Your task to perform on an android device: Play the last video I watched on Youtube Image 0: 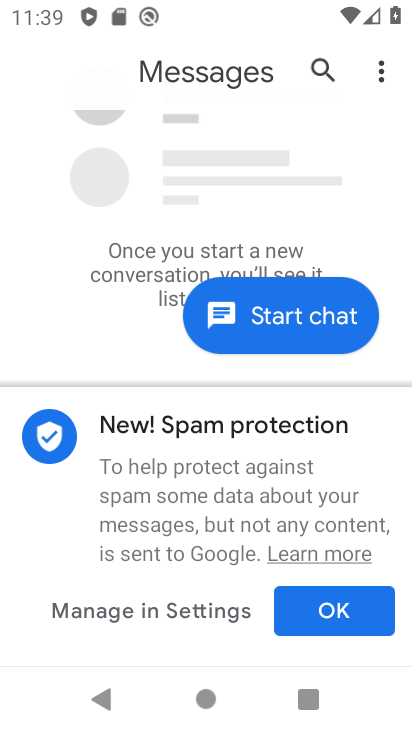
Step 0: press home button
Your task to perform on an android device: Play the last video I watched on Youtube Image 1: 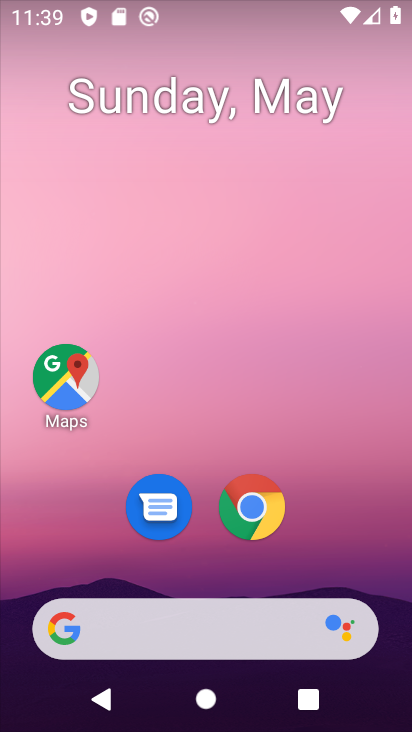
Step 1: drag from (222, 724) to (225, 0)
Your task to perform on an android device: Play the last video I watched on Youtube Image 2: 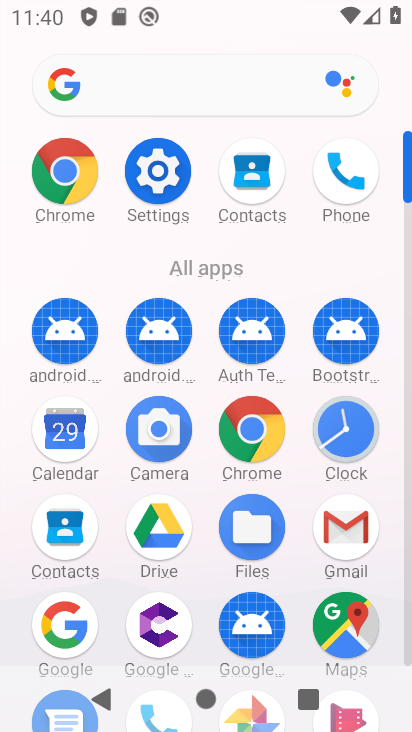
Step 2: drag from (295, 619) to (297, 218)
Your task to perform on an android device: Play the last video I watched on Youtube Image 3: 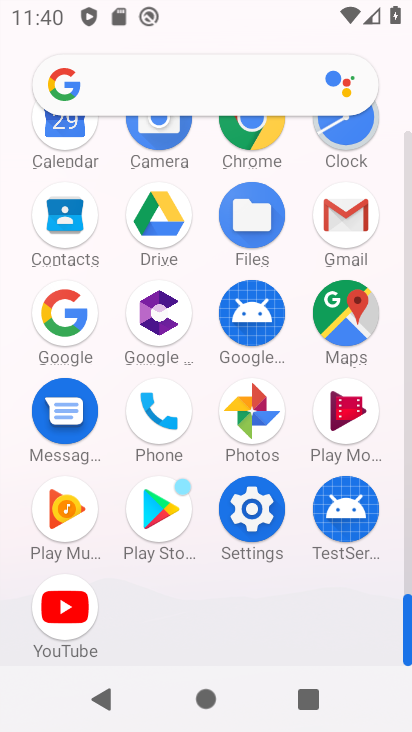
Step 3: click (62, 618)
Your task to perform on an android device: Play the last video I watched on Youtube Image 4: 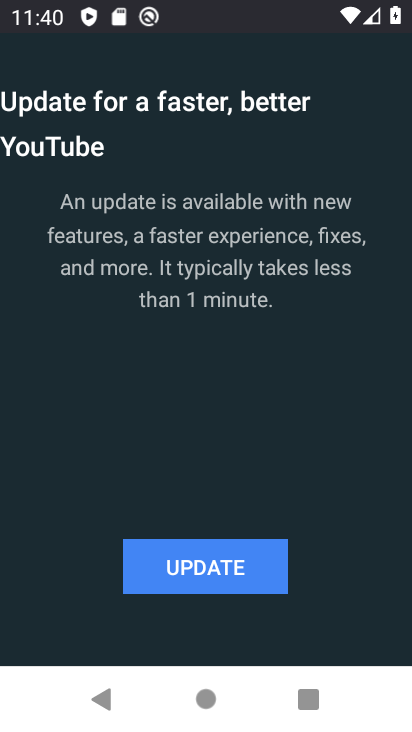
Step 4: click (204, 563)
Your task to perform on an android device: Play the last video I watched on Youtube Image 5: 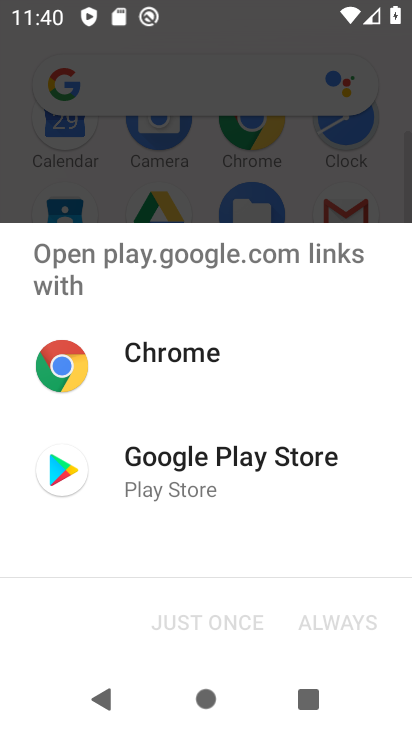
Step 5: click (166, 455)
Your task to perform on an android device: Play the last video I watched on Youtube Image 6: 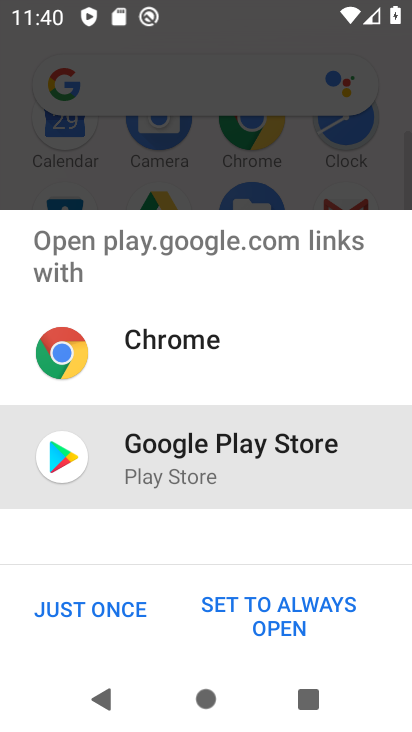
Step 6: click (104, 601)
Your task to perform on an android device: Play the last video I watched on Youtube Image 7: 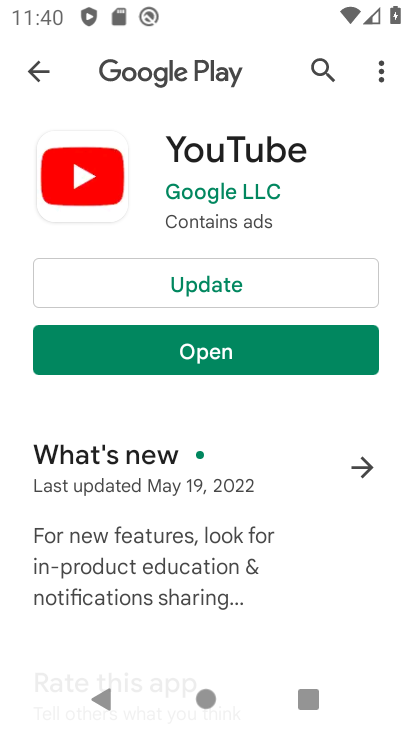
Step 7: click (216, 279)
Your task to perform on an android device: Play the last video I watched on Youtube Image 8: 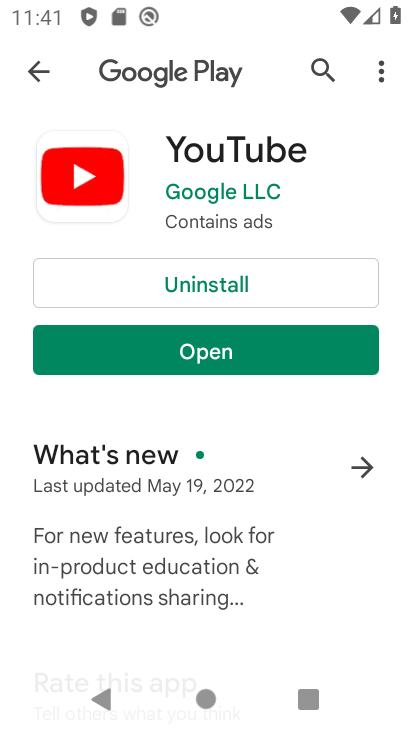
Step 8: click (190, 351)
Your task to perform on an android device: Play the last video I watched on Youtube Image 9: 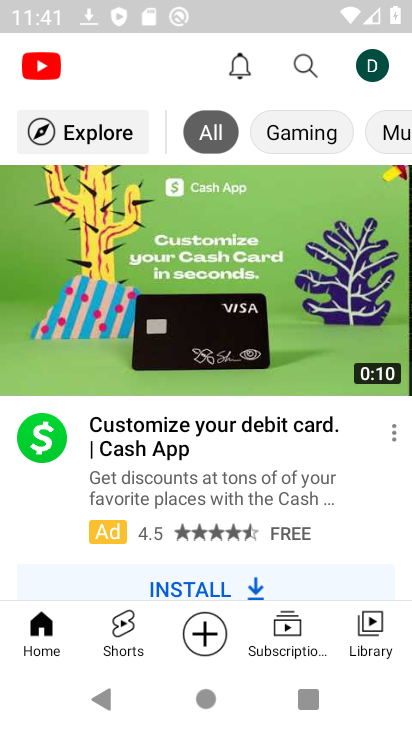
Step 9: click (368, 630)
Your task to perform on an android device: Play the last video I watched on Youtube Image 10: 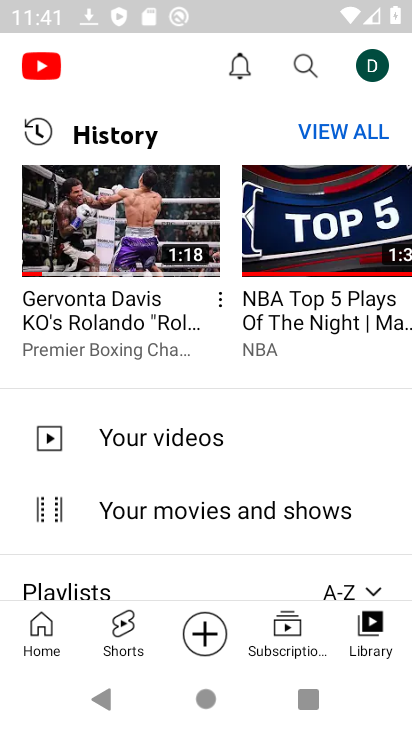
Step 10: click (111, 235)
Your task to perform on an android device: Play the last video I watched on Youtube Image 11: 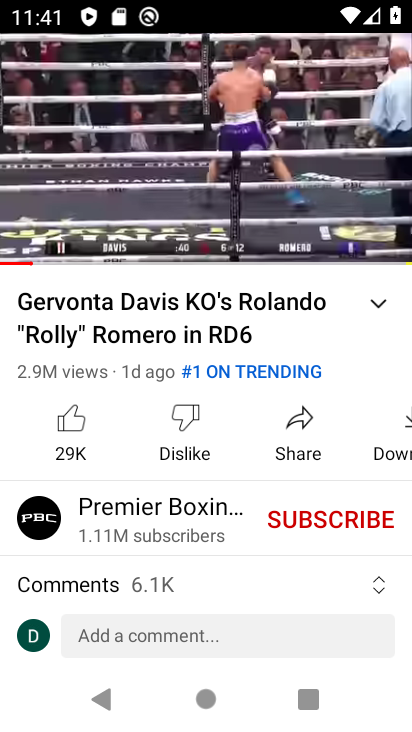
Step 11: click (195, 161)
Your task to perform on an android device: Play the last video I watched on Youtube Image 12: 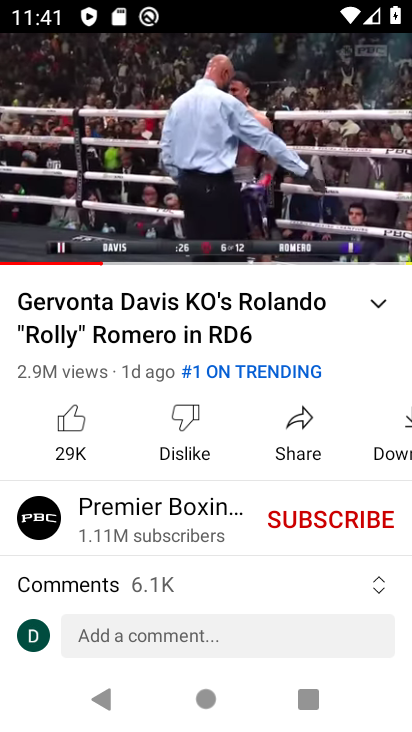
Step 12: task complete